Your task to perform on an android device: choose inbox layout in the gmail app Image 0: 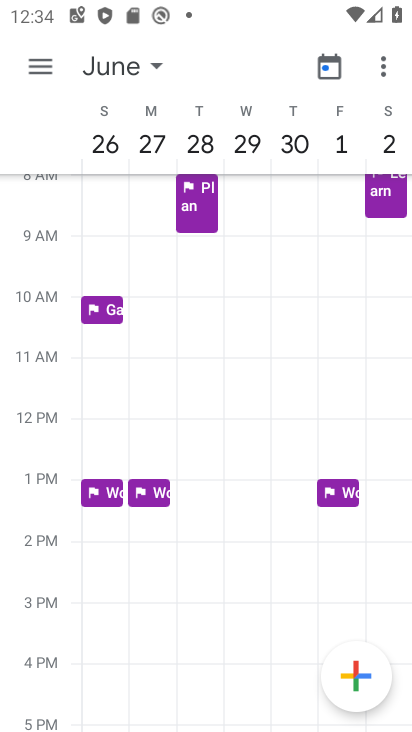
Step 0: press home button
Your task to perform on an android device: choose inbox layout in the gmail app Image 1: 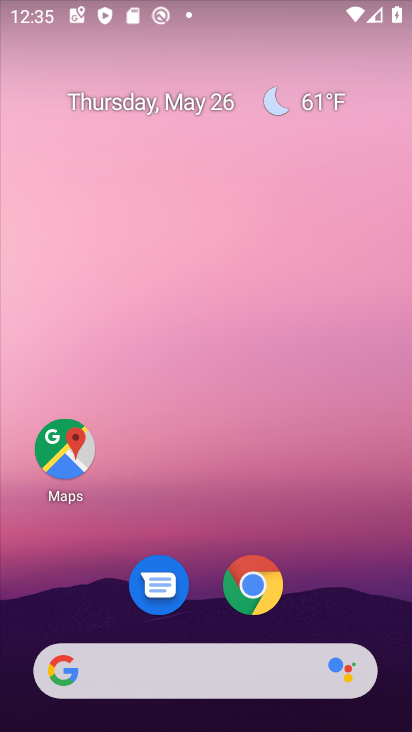
Step 1: drag from (179, 516) to (168, 53)
Your task to perform on an android device: choose inbox layout in the gmail app Image 2: 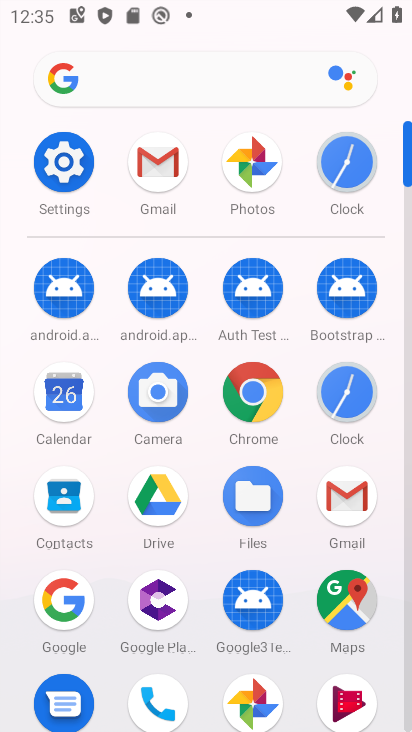
Step 2: click (148, 159)
Your task to perform on an android device: choose inbox layout in the gmail app Image 3: 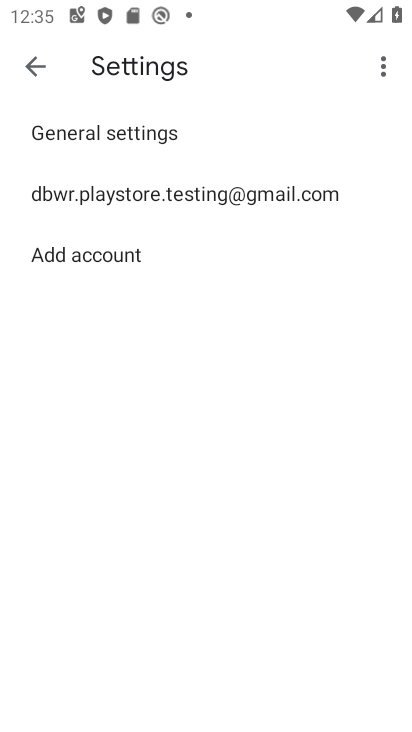
Step 3: click (147, 188)
Your task to perform on an android device: choose inbox layout in the gmail app Image 4: 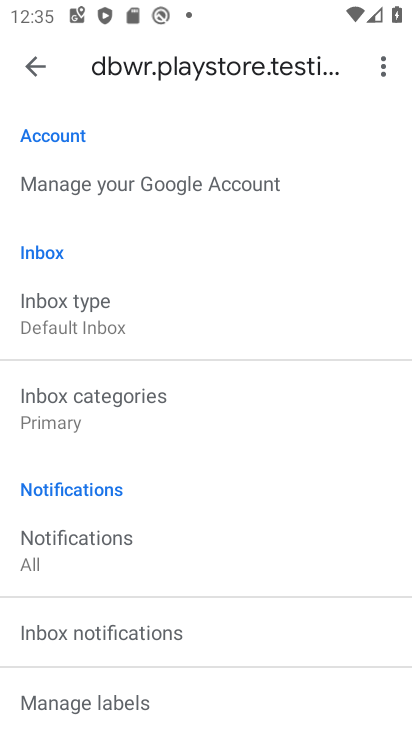
Step 4: click (111, 314)
Your task to perform on an android device: choose inbox layout in the gmail app Image 5: 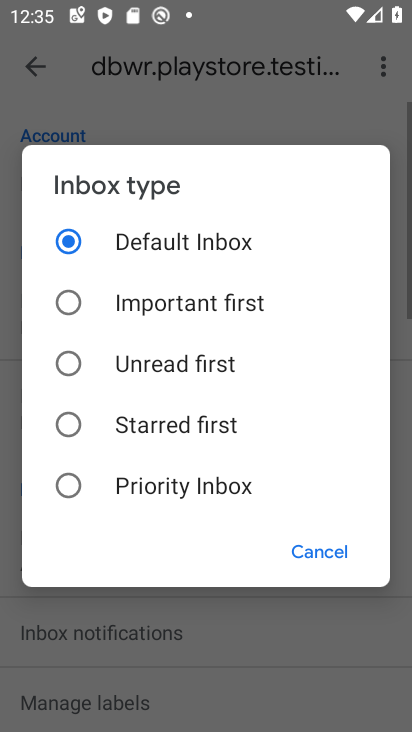
Step 5: click (111, 313)
Your task to perform on an android device: choose inbox layout in the gmail app Image 6: 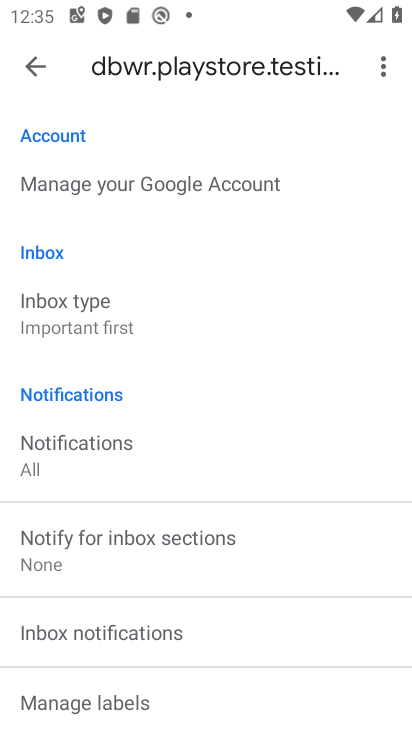
Step 6: task complete